Your task to perform on an android device: Open battery settings Image 0: 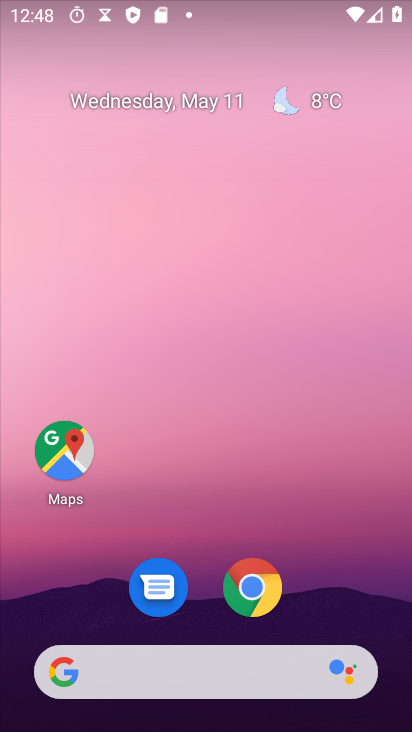
Step 0: drag from (402, 660) to (185, 148)
Your task to perform on an android device: Open battery settings Image 1: 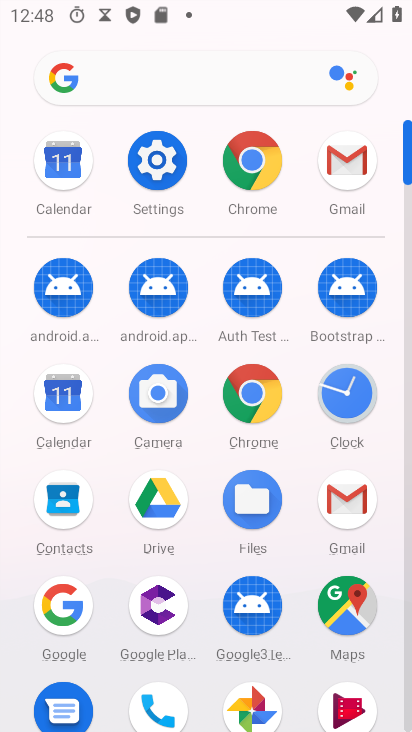
Step 1: click (153, 155)
Your task to perform on an android device: Open battery settings Image 2: 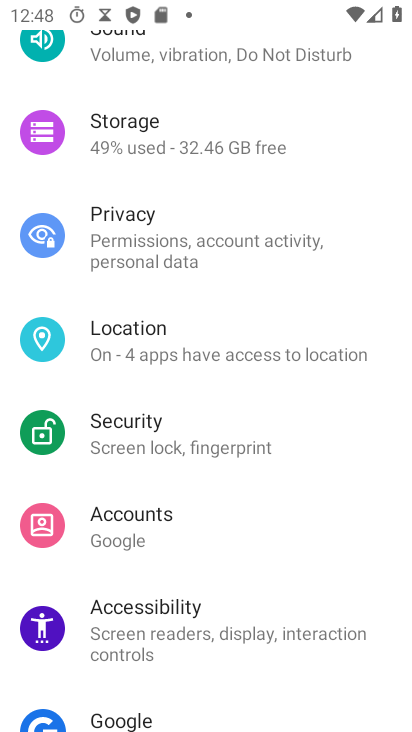
Step 2: drag from (150, 415) to (142, 99)
Your task to perform on an android device: Open battery settings Image 3: 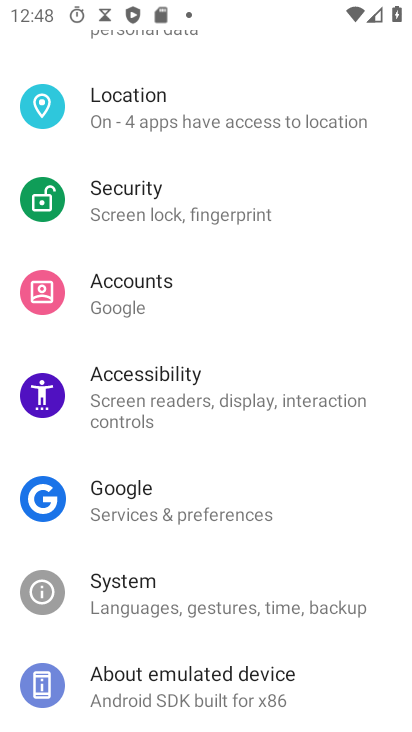
Step 3: drag from (110, 235) to (187, 511)
Your task to perform on an android device: Open battery settings Image 4: 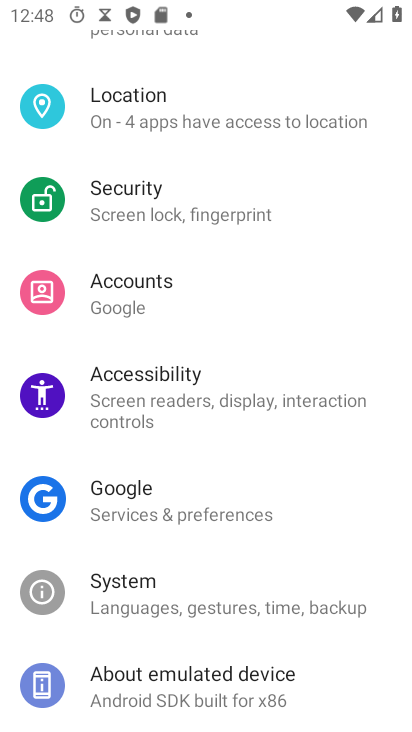
Step 4: drag from (128, 180) to (130, 515)
Your task to perform on an android device: Open battery settings Image 5: 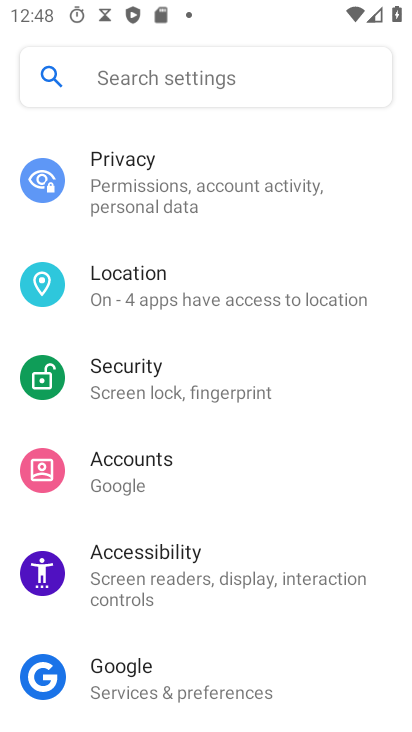
Step 5: drag from (139, 218) to (135, 479)
Your task to perform on an android device: Open battery settings Image 6: 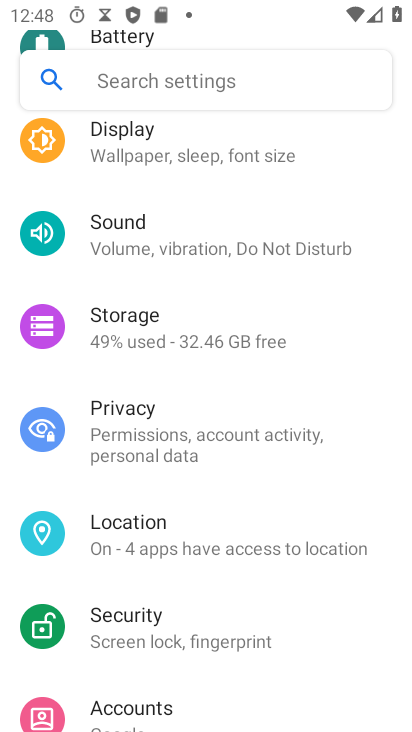
Step 6: drag from (144, 274) to (207, 587)
Your task to perform on an android device: Open battery settings Image 7: 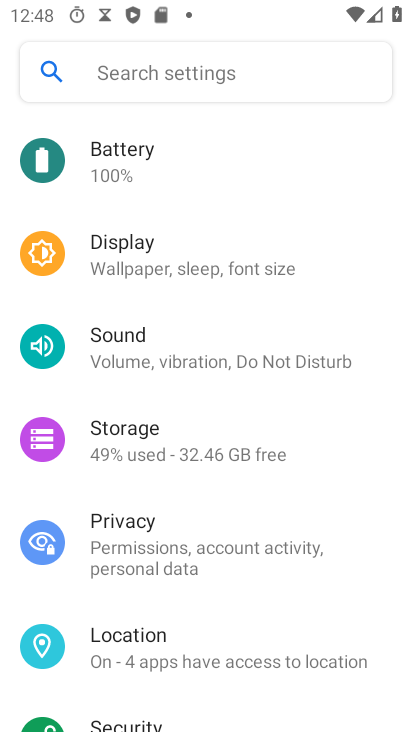
Step 7: click (98, 156)
Your task to perform on an android device: Open battery settings Image 8: 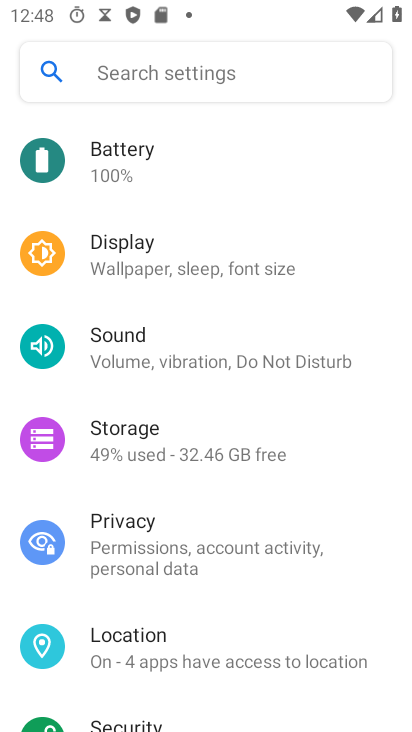
Step 8: click (100, 157)
Your task to perform on an android device: Open battery settings Image 9: 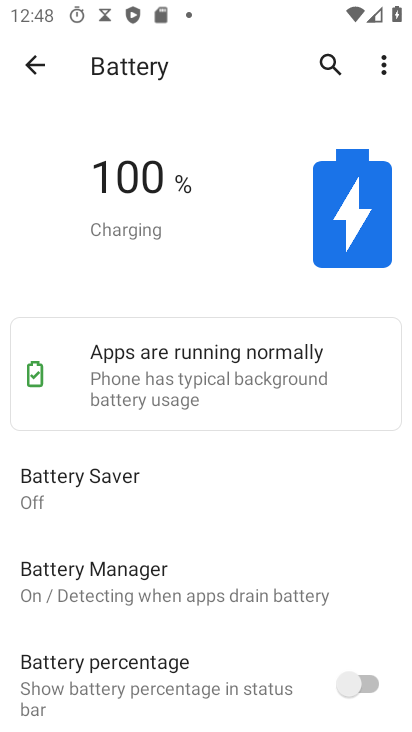
Step 9: task complete